Your task to perform on an android device: open wifi settings Image 0: 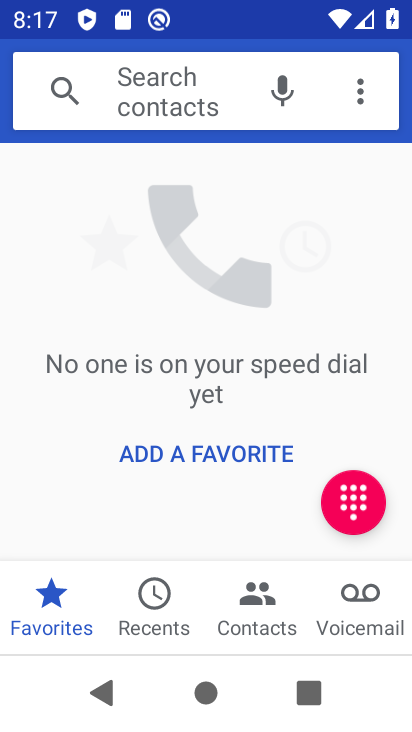
Step 0: press back button
Your task to perform on an android device: open wifi settings Image 1: 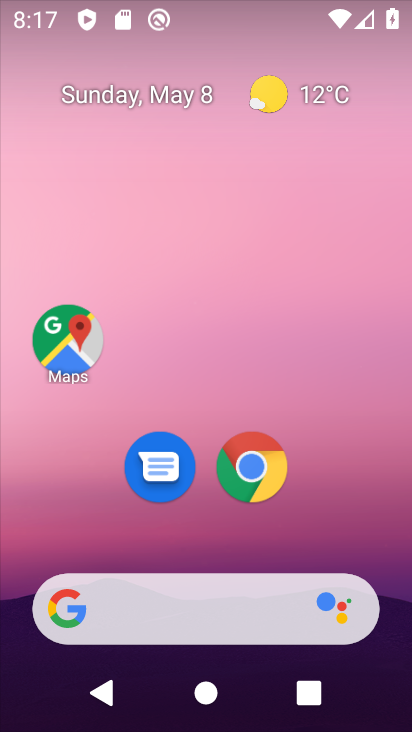
Step 1: drag from (82, 8) to (222, 533)
Your task to perform on an android device: open wifi settings Image 2: 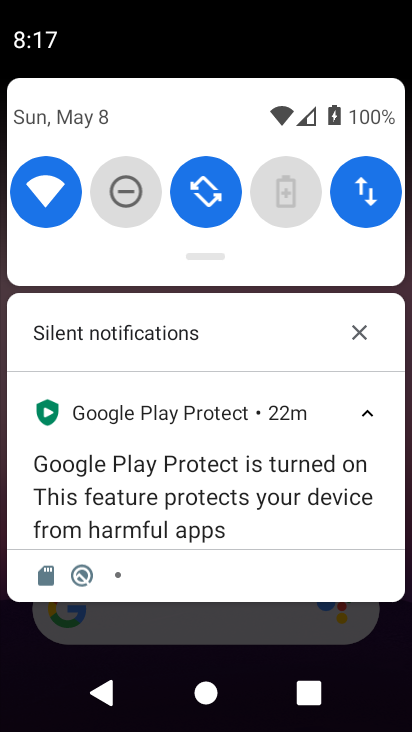
Step 2: click (56, 197)
Your task to perform on an android device: open wifi settings Image 3: 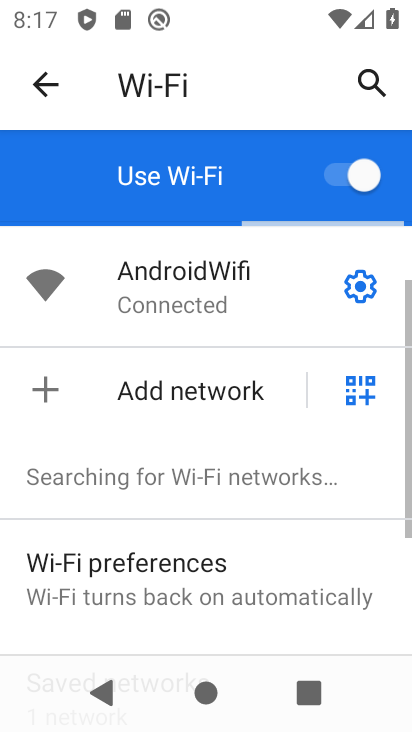
Step 3: task complete